Your task to perform on an android device: Open Youtube and go to the subscriptions tab Image 0: 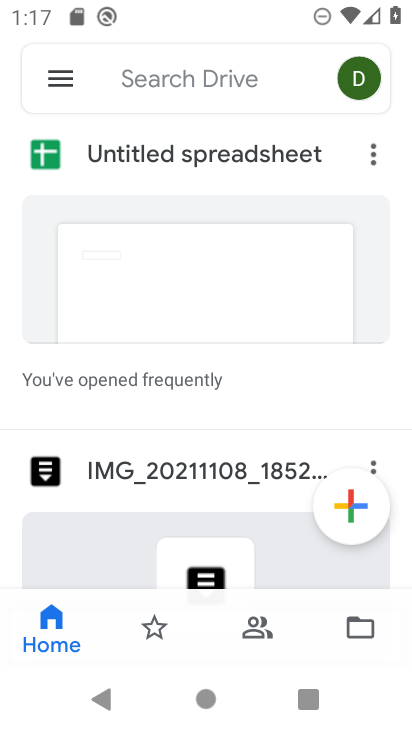
Step 0: press home button
Your task to perform on an android device: Open Youtube and go to the subscriptions tab Image 1: 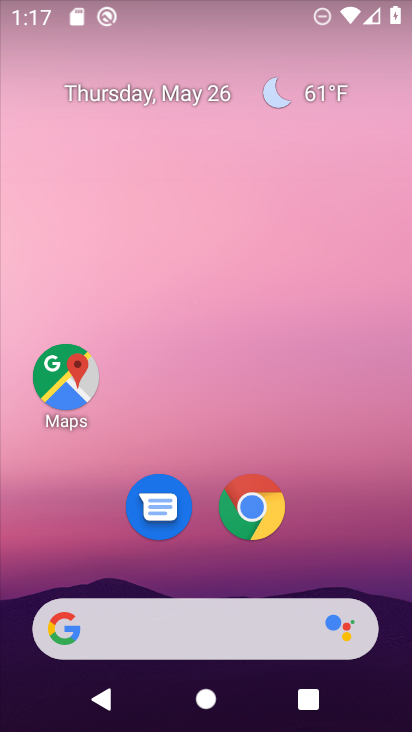
Step 1: drag from (363, 572) to (334, 80)
Your task to perform on an android device: Open Youtube and go to the subscriptions tab Image 2: 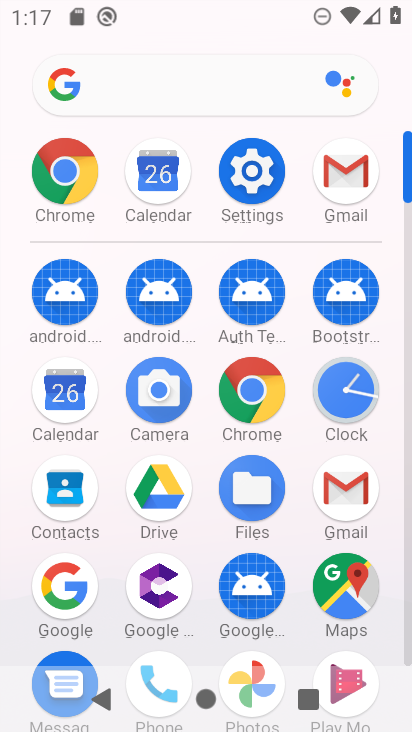
Step 2: click (411, 637)
Your task to perform on an android device: Open Youtube and go to the subscriptions tab Image 3: 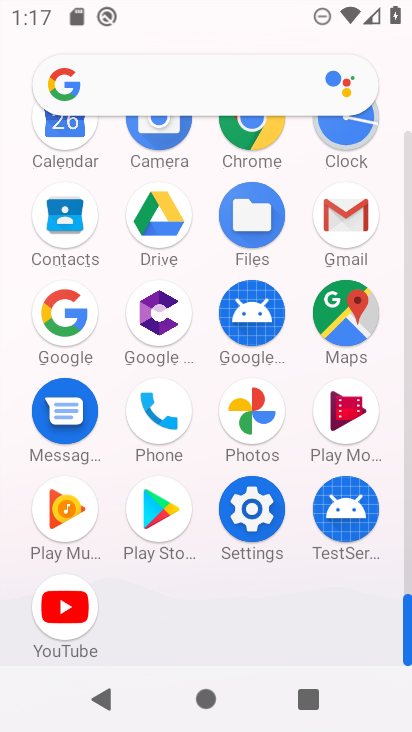
Step 3: click (62, 638)
Your task to perform on an android device: Open Youtube and go to the subscriptions tab Image 4: 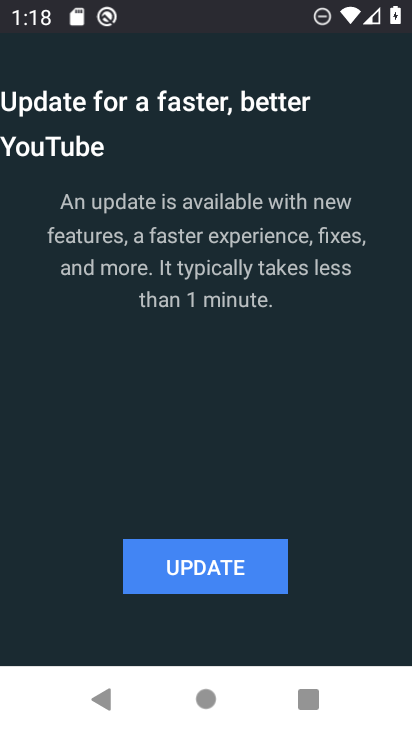
Step 4: click (188, 560)
Your task to perform on an android device: Open Youtube and go to the subscriptions tab Image 5: 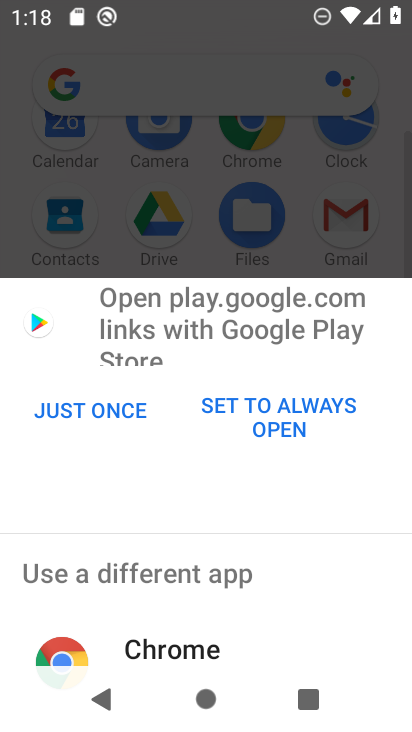
Step 5: click (108, 417)
Your task to perform on an android device: Open Youtube and go to the subscriptions tab Image 6: 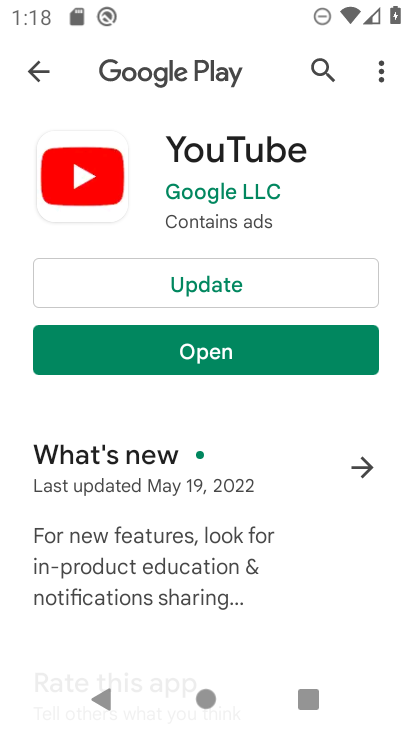
Step 6: click (144, 278)
Your task to perform on an android device: Open Youtube and go to the subscriptions tab Image 7: 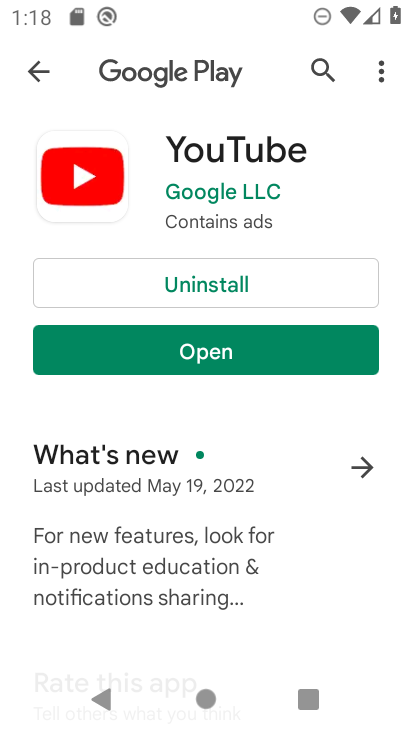
Step 7: click (241, 364)
Your task to perform on an android device: Open Youtube and go to the subscriptions tab Image 8: 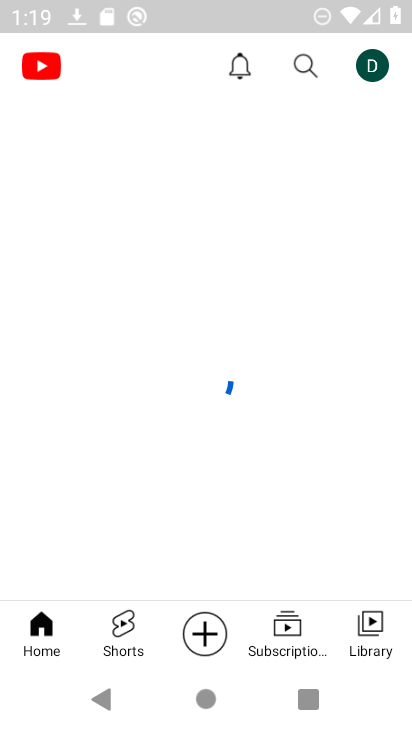
Step 8: click (276, 640)
Your task to perform on an android device: Open Youtube and go to the subscriptions tab Image 9: 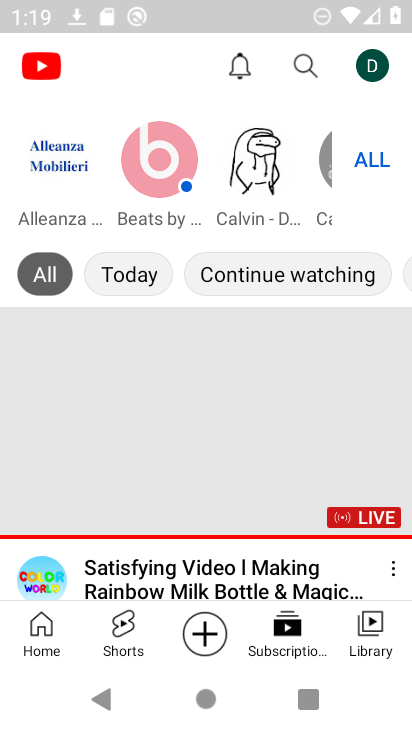
Step 9: task complete